Your task to perform on an android device: toggle priority inbox in the gmail app Image 0: 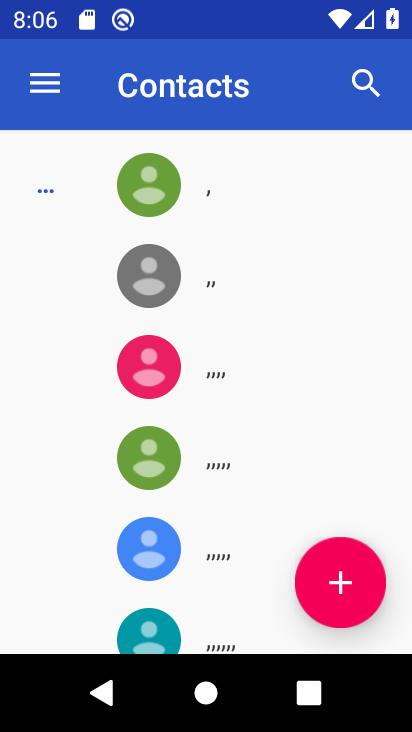
Step 0: press home button
Your task to perform on an android device: toggle priority inbox in the gmail app Image 1: 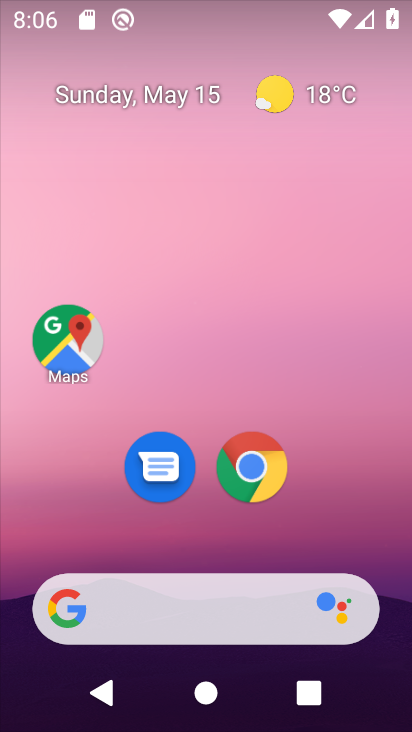
Step 1: drag from (263, 537) to (367, 30)
Your task to perform on an android device: toggle priority inbox in the gmail app Image 2: 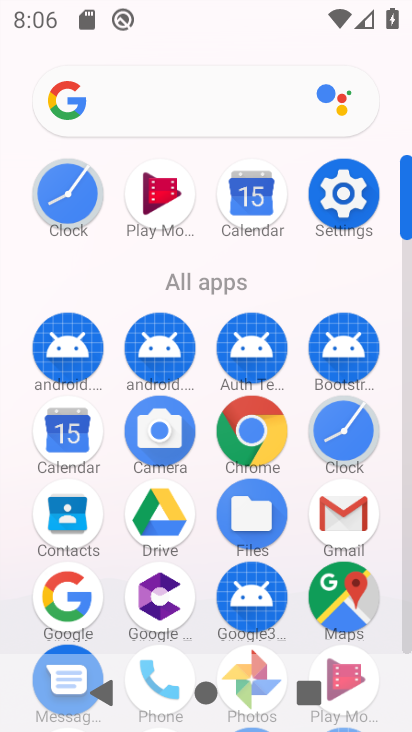
Step 2: click (335, 505)
Your task to perform on an android device: toggle priority inbox in the gmail app Image 3: 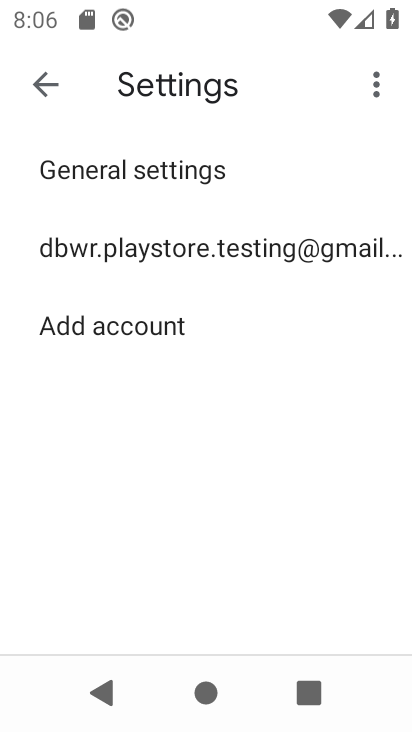
Step 3: click (271, 256)
Your task to perform on an android device: toggle priority inbox in the gmail app Image 4: 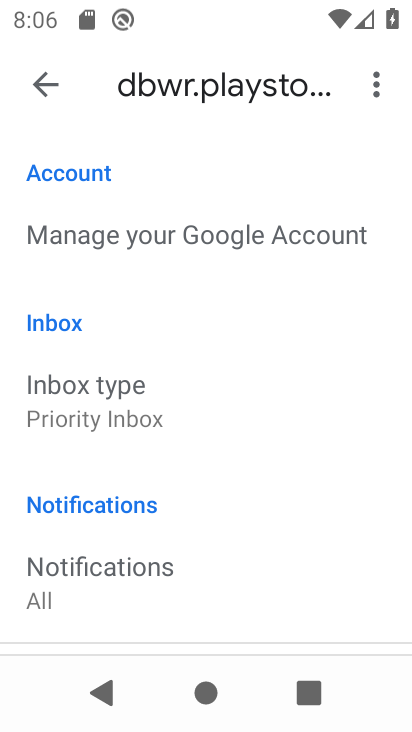
Step 4: click (121, 412)
Your task to perform on an android device: toggle priority inbox in the gmail app Image 5: 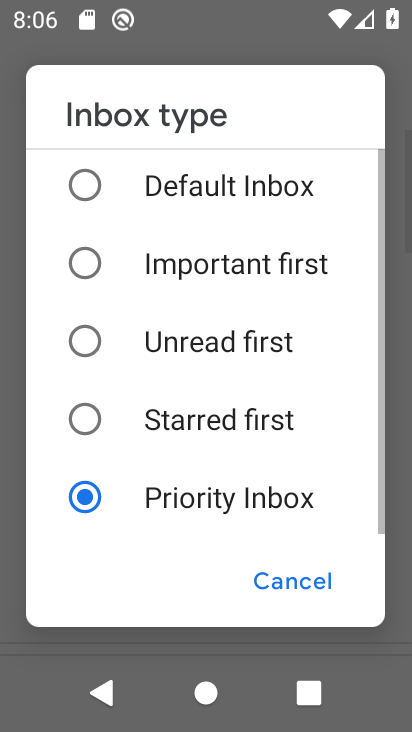
Step 5: click (222, 202)
Your task to perform on an android device: toggle priority inbox in the gmail app Image 6: 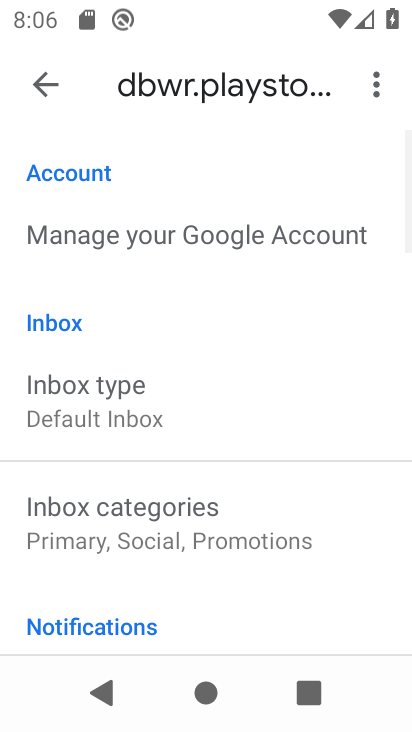
Step 6: task complete